Your task to perform on an android device: toggle location history Image 0: 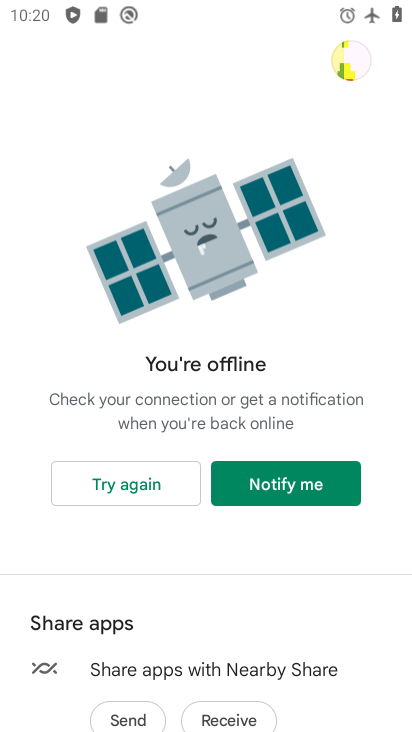
Step 0: press home button
Your task to perform on an android device: toggle location history Image 1: 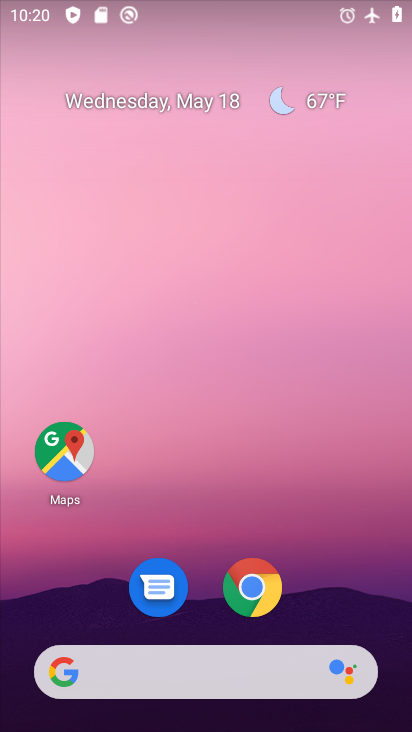
Step 1: drag from (331, 577) to (326, 249)
Your task to perform on an android device: toggle location history Image 2: 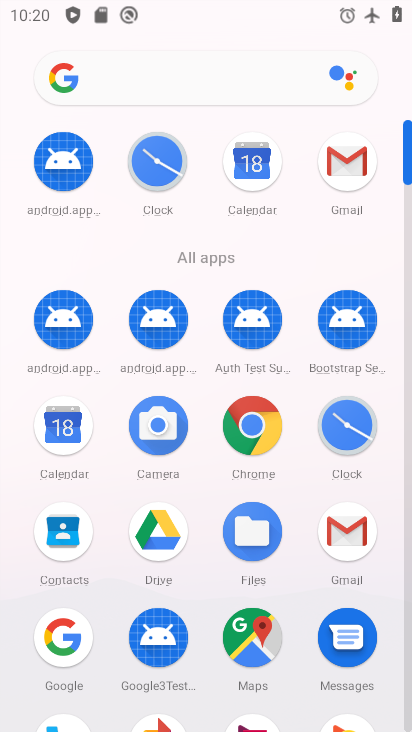
Step 2: drag from (306, 580) to (295, 234)
Your task to perform on an android device: toggle location history Image 3: 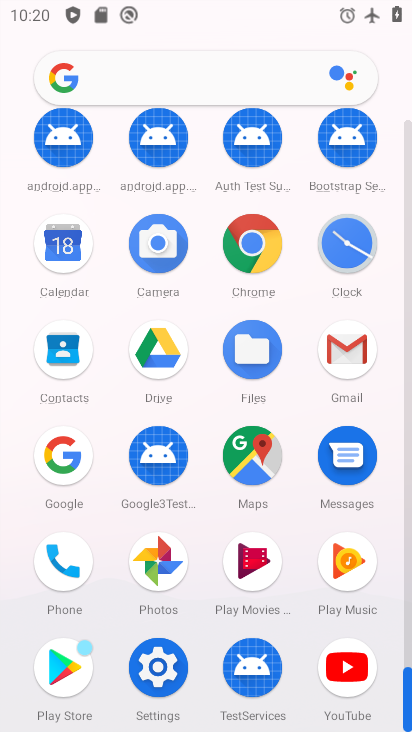
Step 3: click (152, 662)
Your task to perform on an android device: toggle location history Image 4: 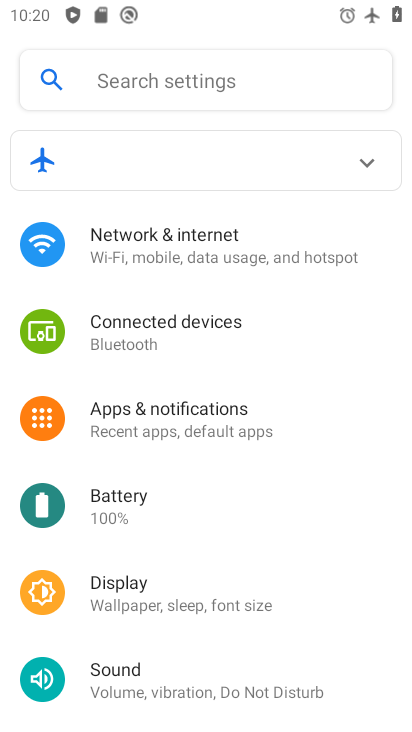
Step 4: drag from (289, 613) to (318, 252)
Your task to perform on an android device: toggle location history Image 5: 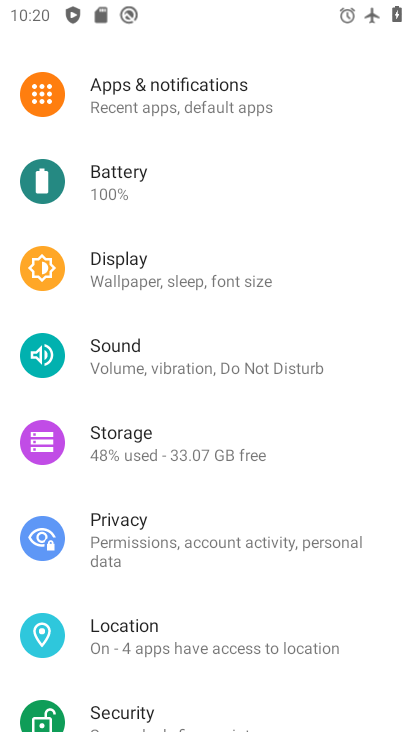
Step 5: click (210, 636)
Your task to perform on an android device: toggle location history Image 6: 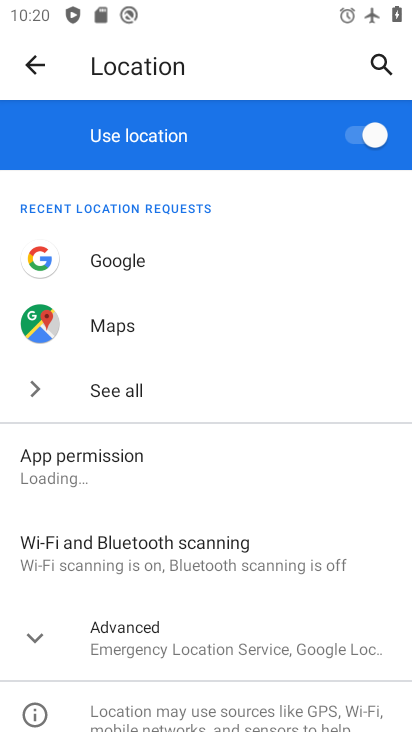
Step 6: drag from (204, 593) to (233, 381)
Your task to perform on an android device: toggle location history Image 7: 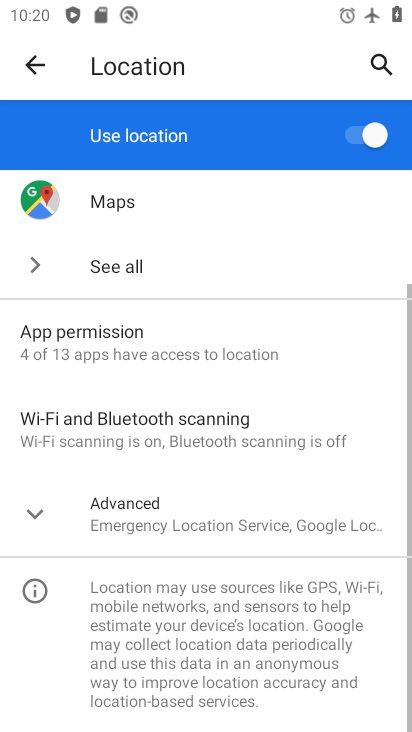
Step 7: click (192, 510)
Your task to perform on an android device: toggle location history Image 8: 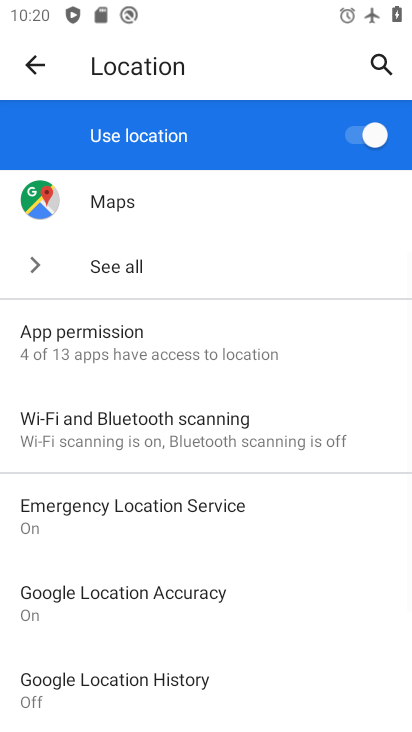
Step 8: drag from (260, 615) to (264, 366)
Your task to perform on an android device: toggle location history Image 9: 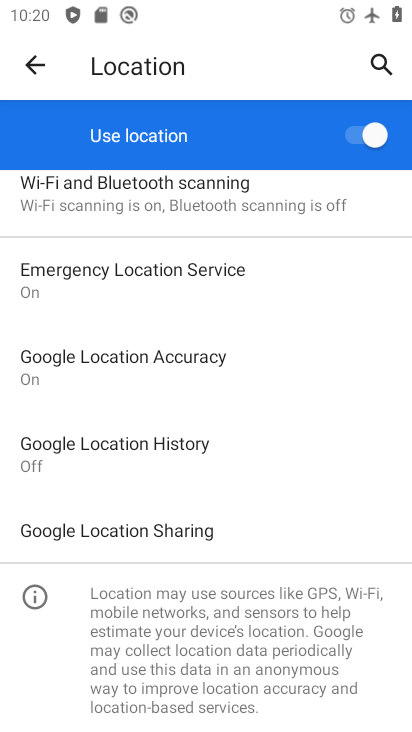
Step 9: click (220, 436)
Your task to perform on an android device: toggle location history Image 10: 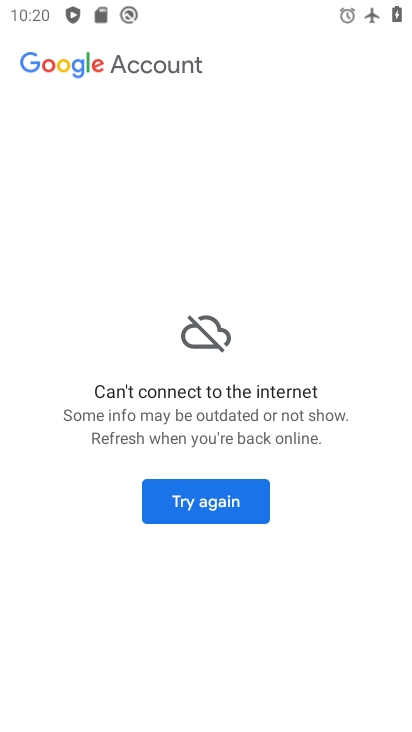
Step 10: click (167, 493)
Your task to perform on an android device: toggle location history Image 11: 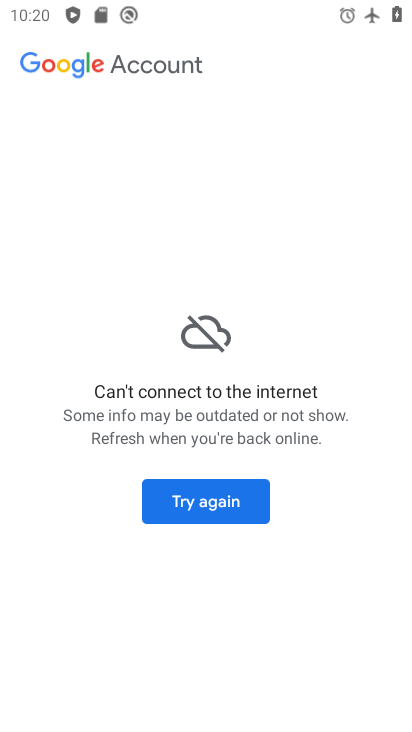
Step 11: click (180, 506)
Your task to perform on an android device: toggle location history Image 12: 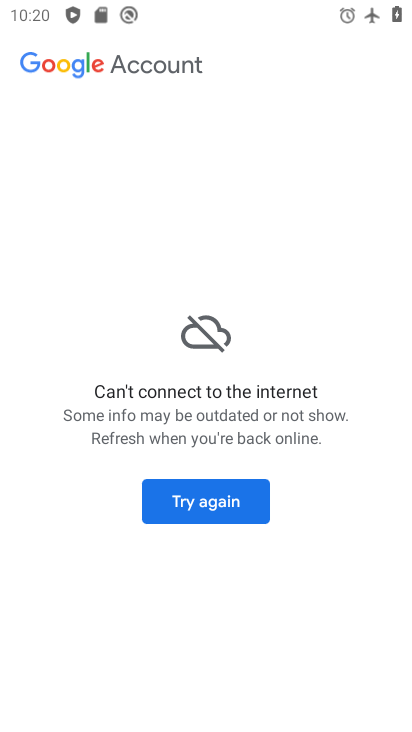
Step 12: click (205, 508)
Your task to perform on an android device: toggle location history Image 13: 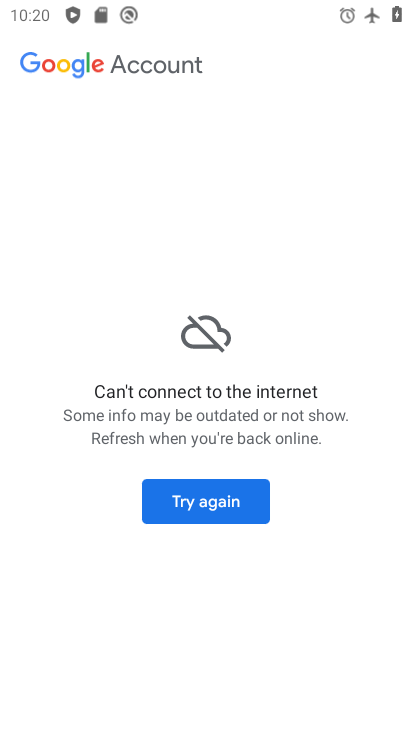
Step 13: task complete